Your task to perform on an android device: turn off location Image 0: 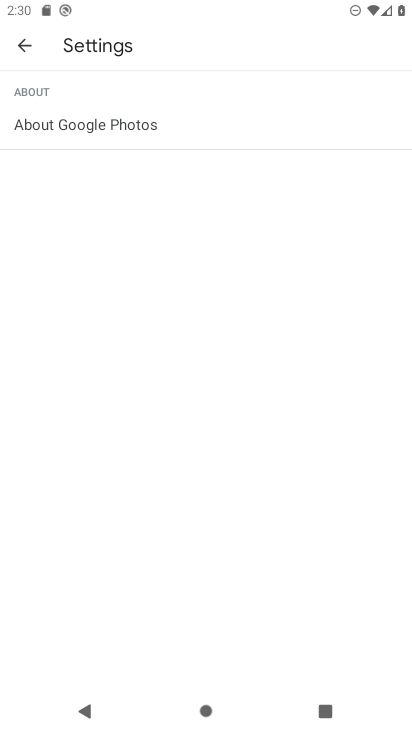
Step 0: press home button
Your task to perform on an android device: turn off location Image 1: 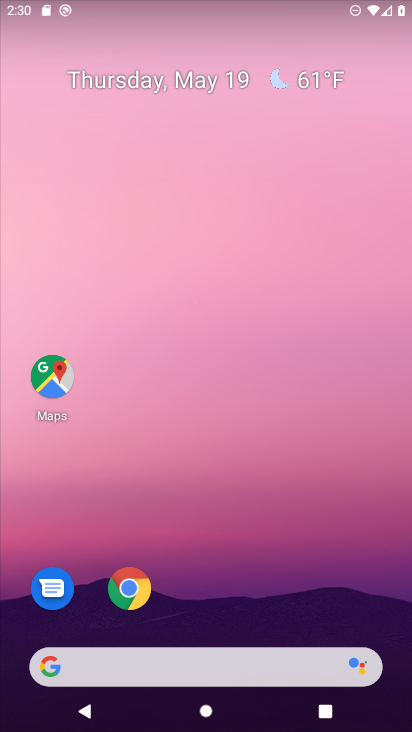
Step 1: drag from (317, 641) to (360, 18)
Your task to perform on an android device: turn off location Image 2: 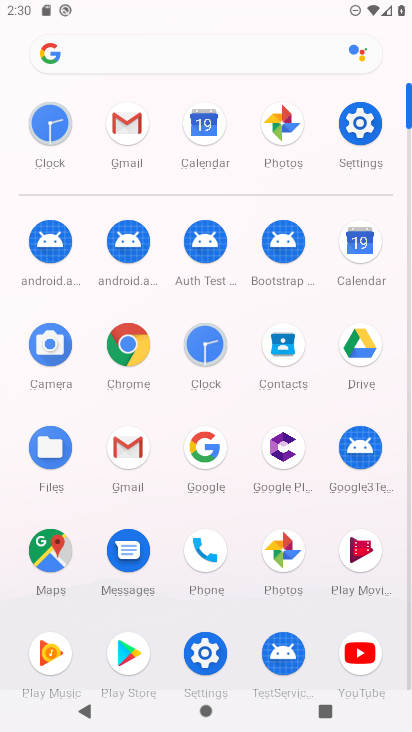
Step 2: click (356, 131)
Your task to perform on an android device: turn off location Image 3: 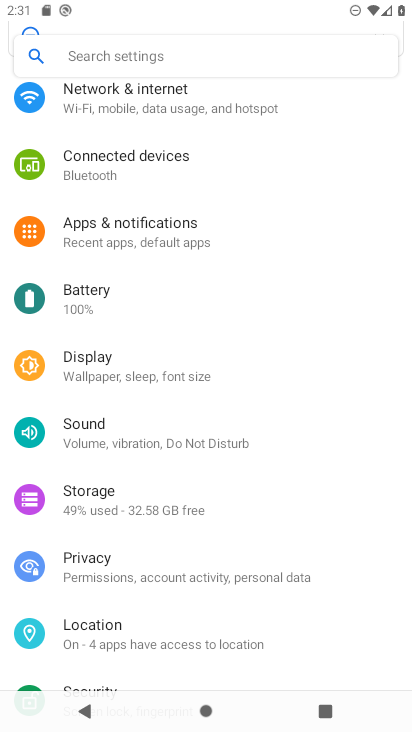
Step 3: click (95, 631)
Your task to perform on an android device: turn off location Image 4: 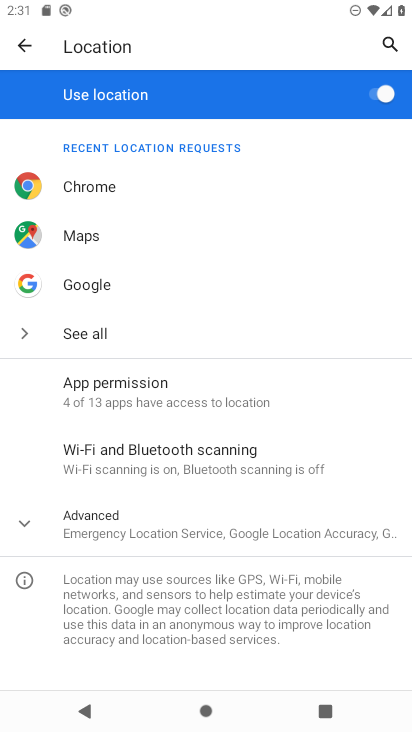
Step 4: click (392, 102)
Your task to perform on an android device: turn off location Image 5: 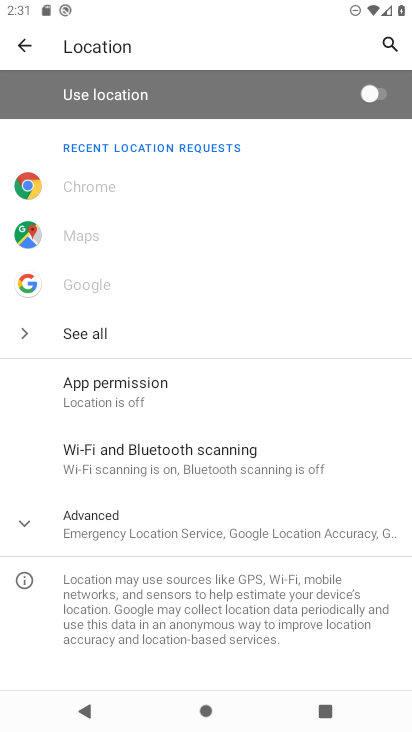
Step 5: task complete